Your task to perform on an android device: toggle sleep mode Image 0: 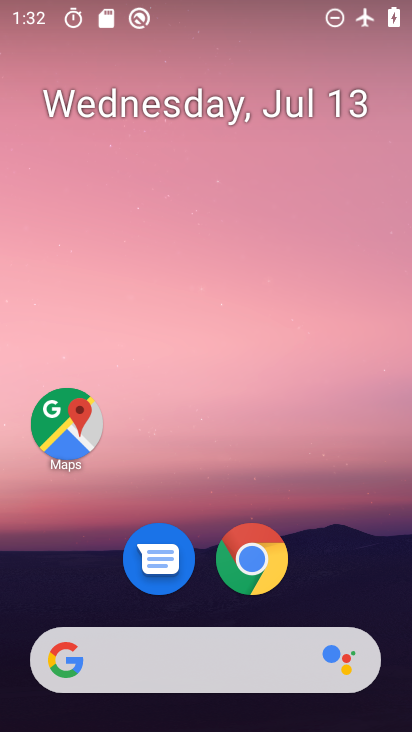
Step 0: drag from (229, 676) to (217, 255)
Your task to perform on an android device: toggle sleep mode Image 1: 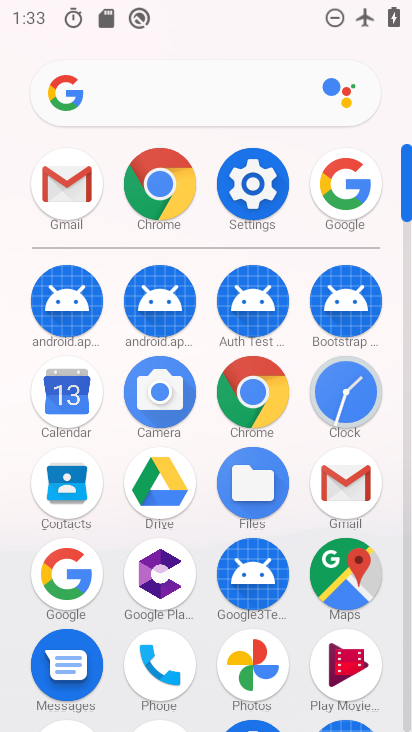
Step 1: click (266, 204)
Your task to perform on an android device: toggle sleep mode Image 2: 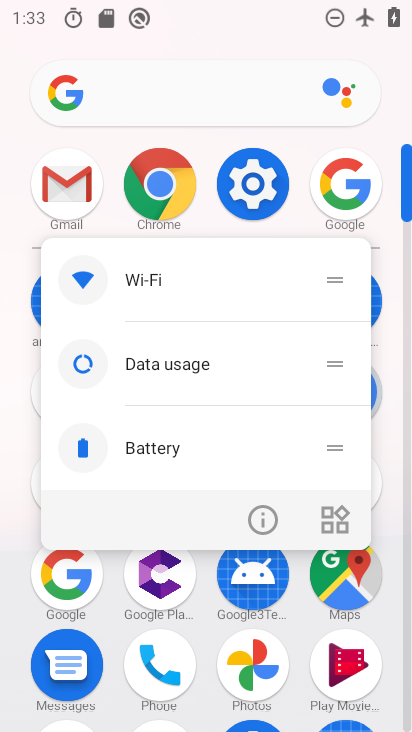
Step 2: click (257, 199)
Your task to perform on an android device: toggle sleep mode Image 3: 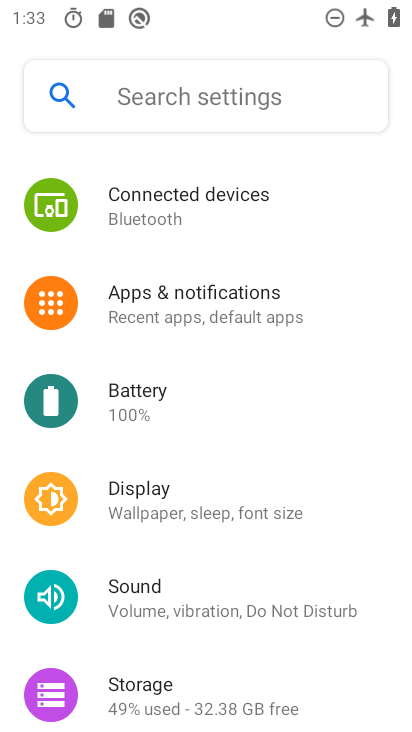
Step 3: click (166, 495)
Your task to perform on an android device: toggle sleep mode Image 4: 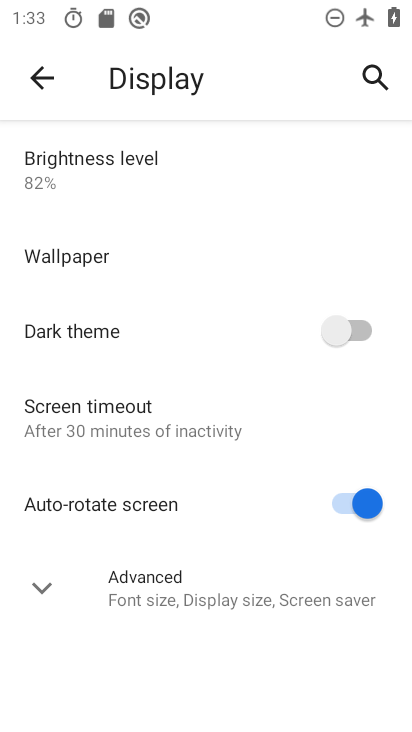
Step 4: click (232, 594)
Your task to perform on an android device: toggle sleep mode Image 5: 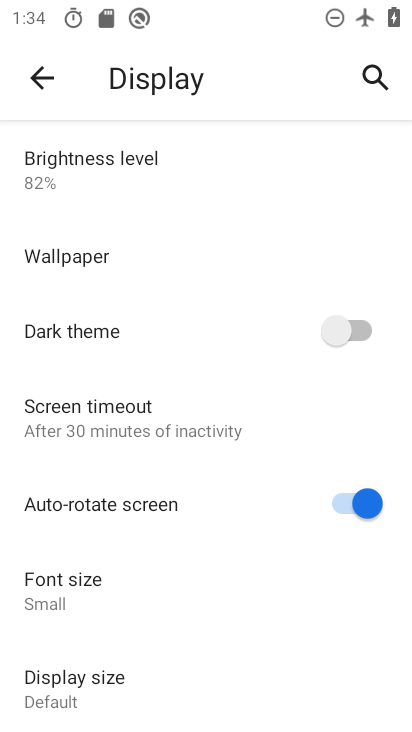
Step 5: task complete